Your task to perform on an android device: open app "McDonald's" Image 0: 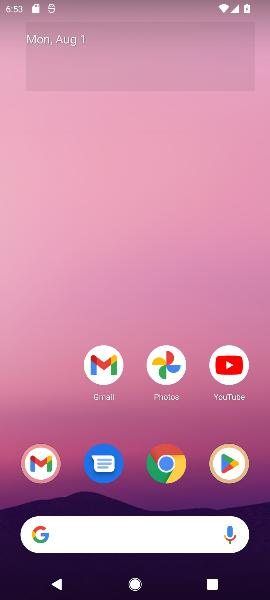
Step 0: task complete